Your task to perform on an android device: What's on my calendar today? Image 0: 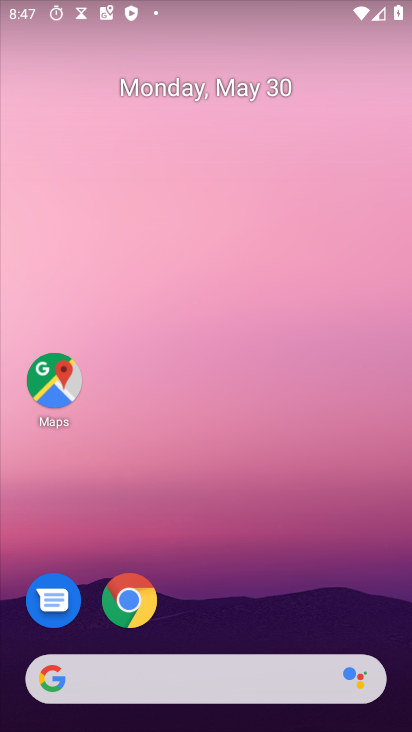
Step 0: drag from (269, 570) to (190, 65)
Your task to perform on an android device: What's on my calendar today? Image 1: 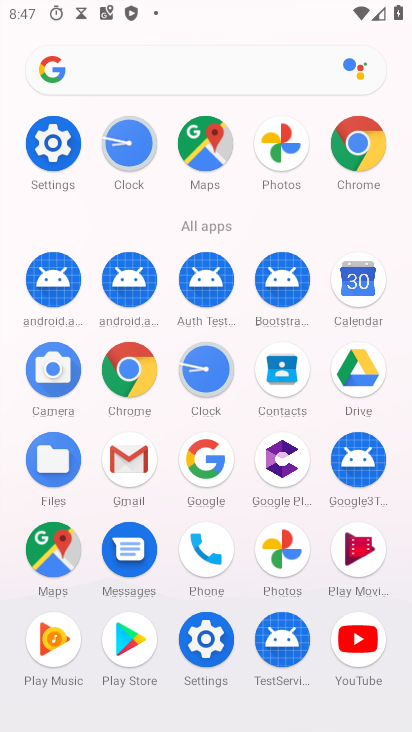
Step 1: click (359, 278)
Your task to perform on an android device: What's on my calendar today? Image 2: 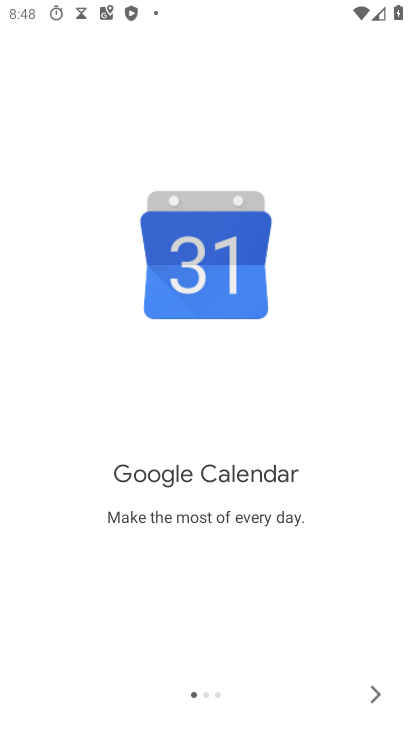
Step 2: click (366, 689)
Your task to perform on an android device: What's on my calendar today? Image 3: 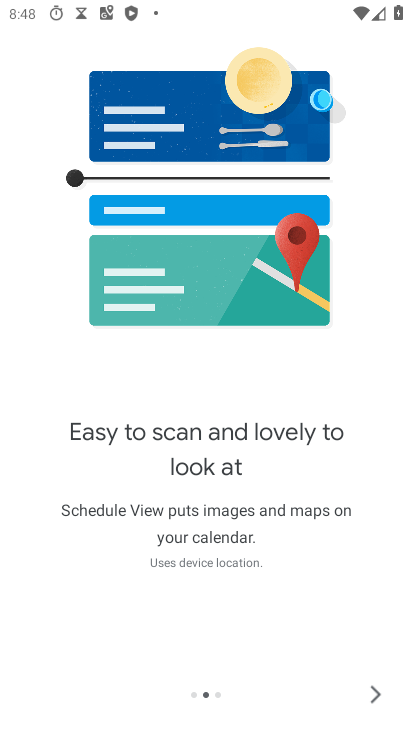
Step 3: click (366, 689)
Your task to perform on an android device: What's on my calendar today? Image 4: 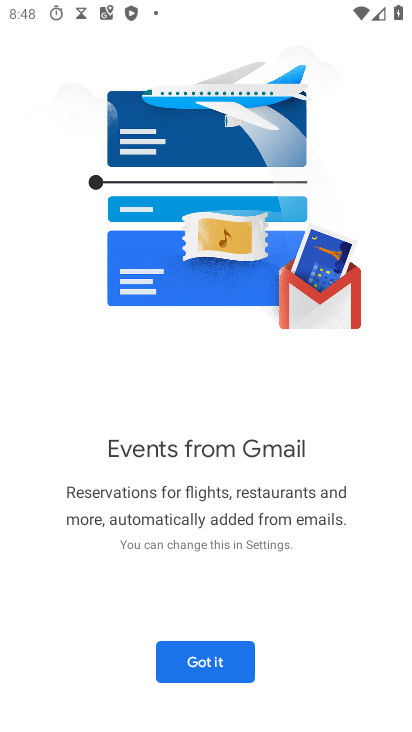
Step 4: click (366, 689)
Your task to perform on an android device: What's on my calendar today? Image 5: 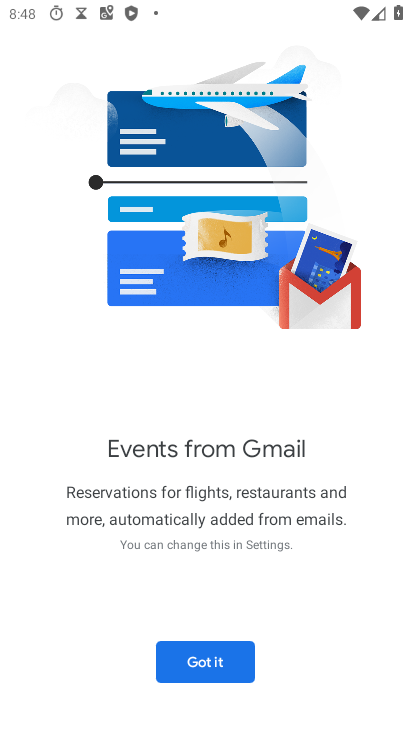
Step 5: click (194, 654)
Your task to perform on an android device: What's on my calendar today? Image 6: 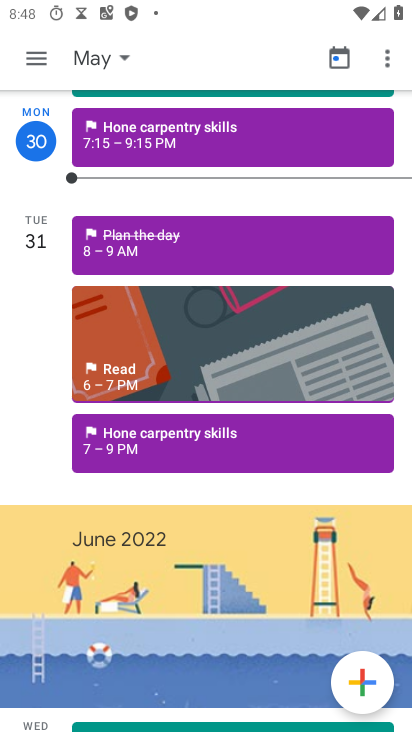
Step 6: click (340, 52)
Your task to perform on an android device: What's on my calendar today? Image 7: 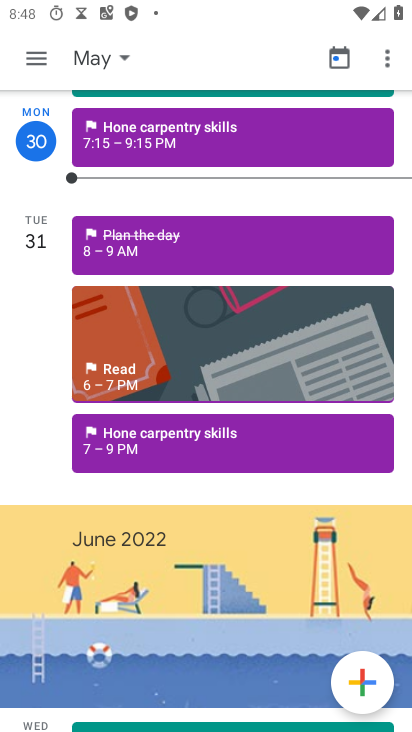
Step 7: task complete